Your task to perform on an android device: Find coffee shops on Maps Image 0: 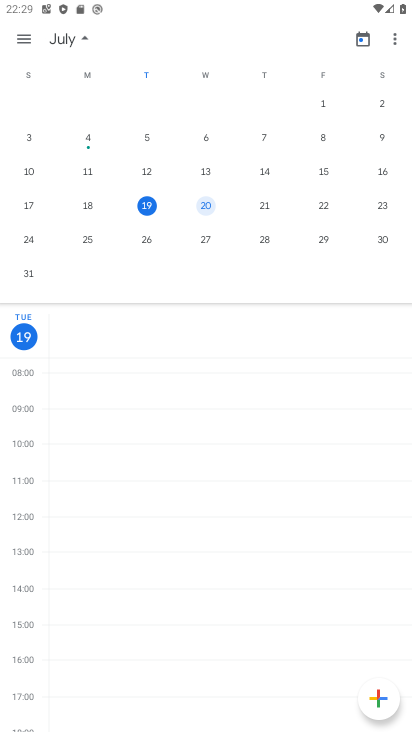
Step 0: press home button
Your task to perform on an android device: Find coffee shops on Maps Image 1: 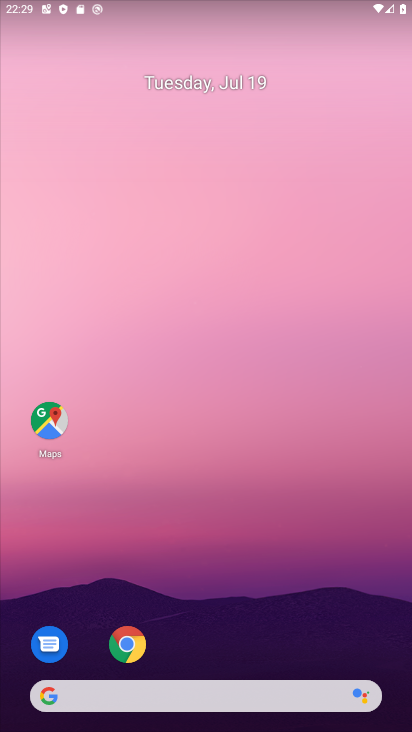
Step 1: drag from (181, 695) to (223, 167)
Your task to perform on an android device: Find coffee shops on Maps Image 2: 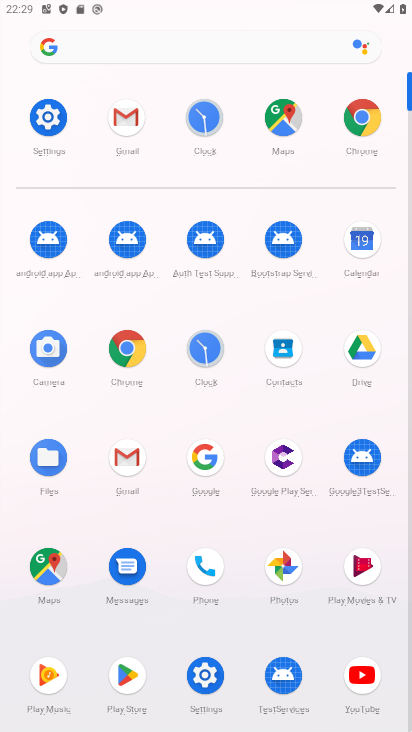
Step 2: click (35, 569)
Your task to perform on an android device: Find coffee shops on Maps Image 3: 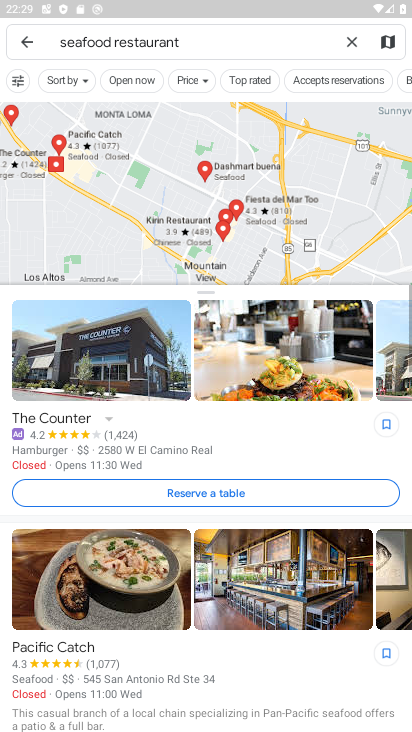
Step 3: click (353, 40)
Your task to perform on an android device: Find coffee shops on Maps Image 4: 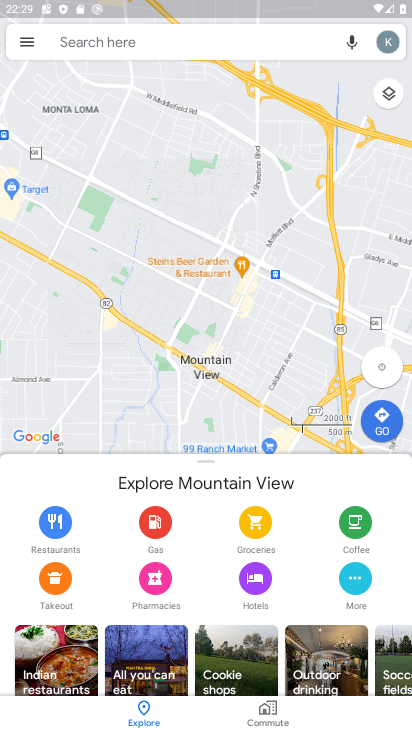
Step 4: click (274, 35)
Your task to perform on an android device: Find coffee shops on Maps Image 5: 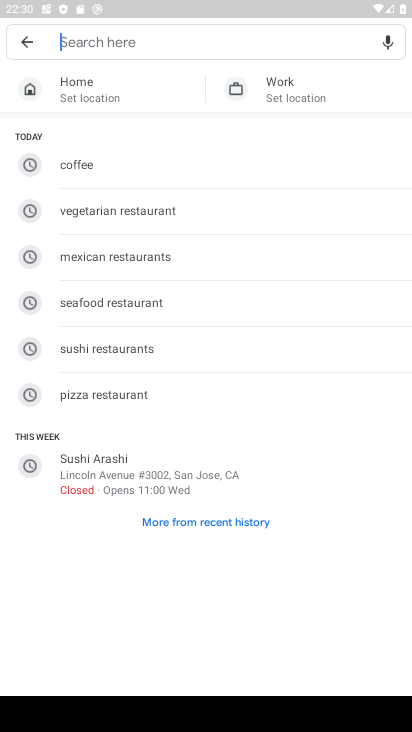
Step 5: type "coffee shops"
Your task to perform on an android device: Find coffee shops on Maps Image 6: 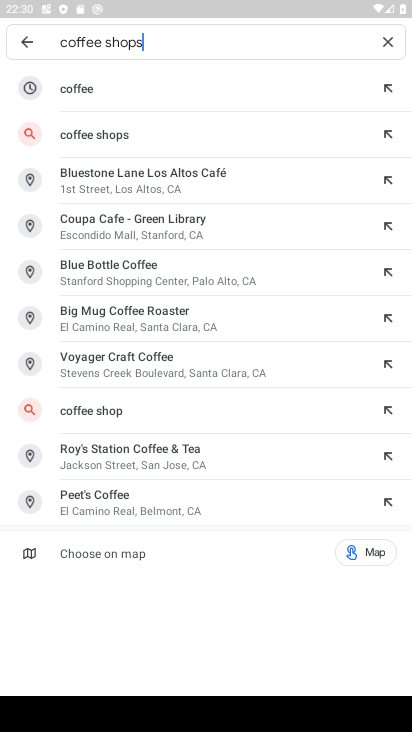
Step 6: click (101, 129)
Your task to perform on an android device: Find coffee shops on Maps Image 7: 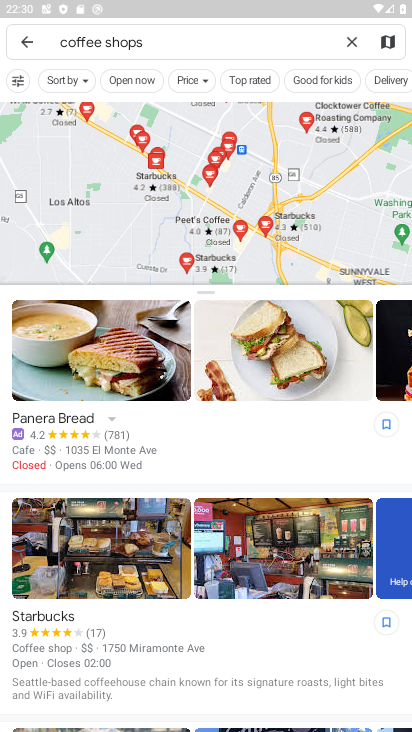
Step 7: task complete